Your task to perform on an android device: delete the emails in spam in the gmail app Image 0: 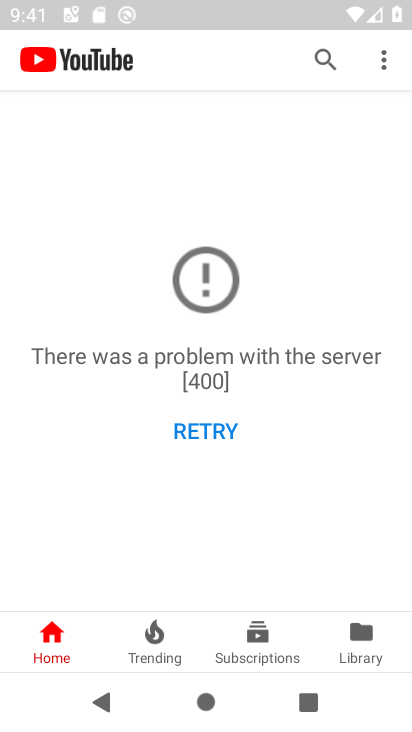
Step 0: press home button
Your task to perform on an android device: delete the emails in spam in the gmail app Image 1: 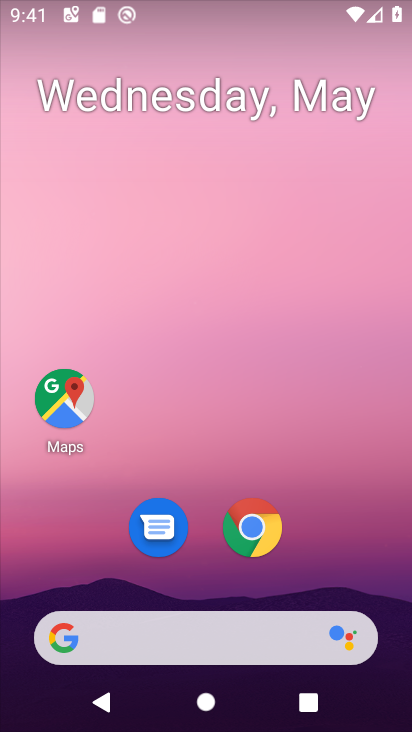
Step 1: drag from (311, 440) to (317, 71)
Your task to perform on an android device: delete the emails in spam in the gmail app Image 2: 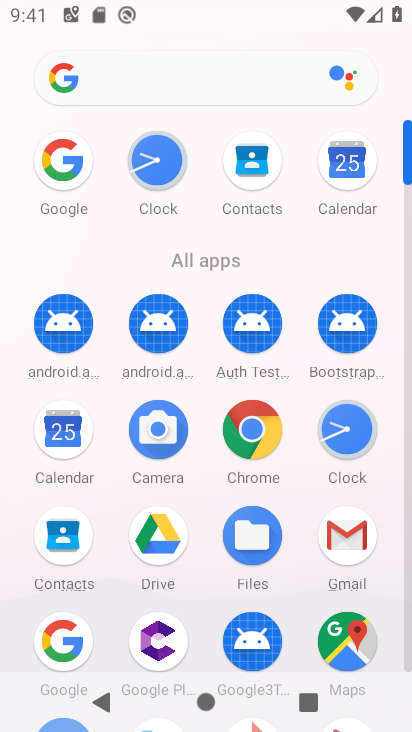
Step 2: click (346, 541)
Your task to perform on an android device: delete the emails in spam in the gmail app Image 3: 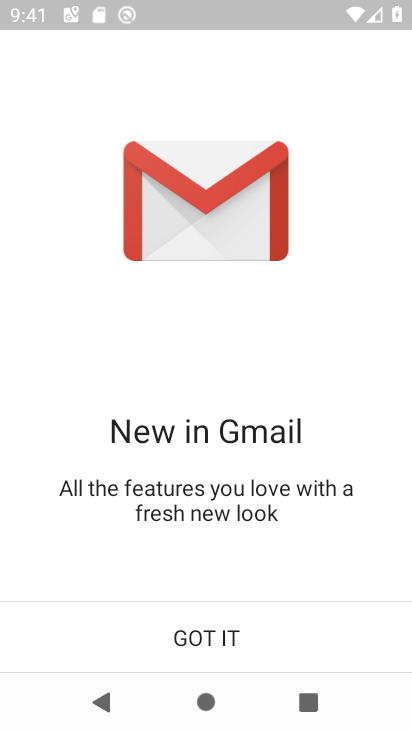
Step 3: click (218, 622)
Your task to perform on an android device: delete the emails in spam in the gmail app Image 4: 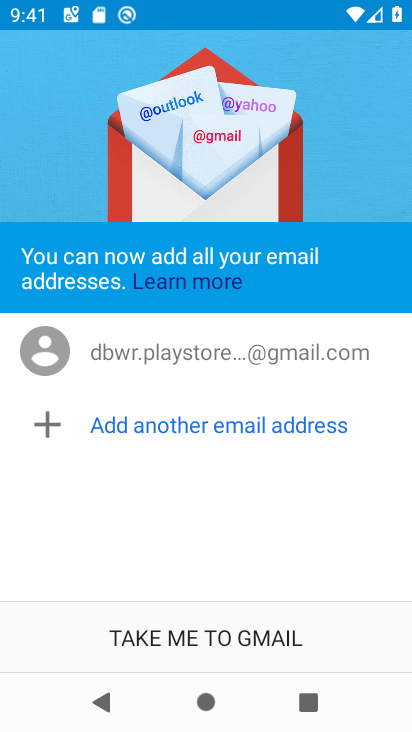
Step 4: click (219, 623)
Your task to perform on an android device: delete the emails in spam in the gmail app Image 5: 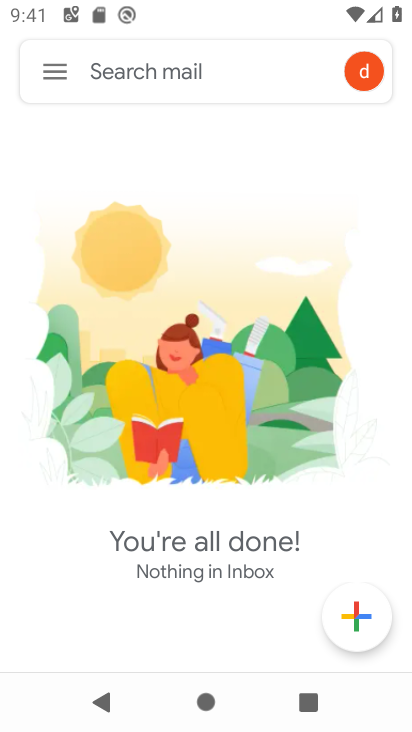
Step 5: click (50, 55)
Your task to perform on an android device: delete the emails in spam in the gmail app Image 6: 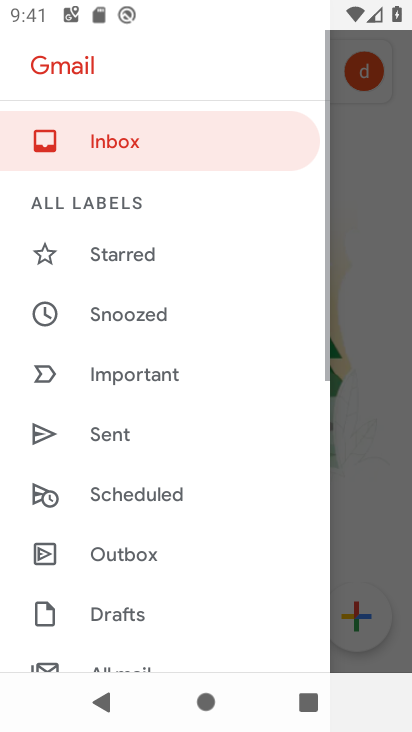
Step 6: drag from (154, 616) to (158, 275)
Your task to perform on an android device: delete the emails in spam in the gmail app Image 7: 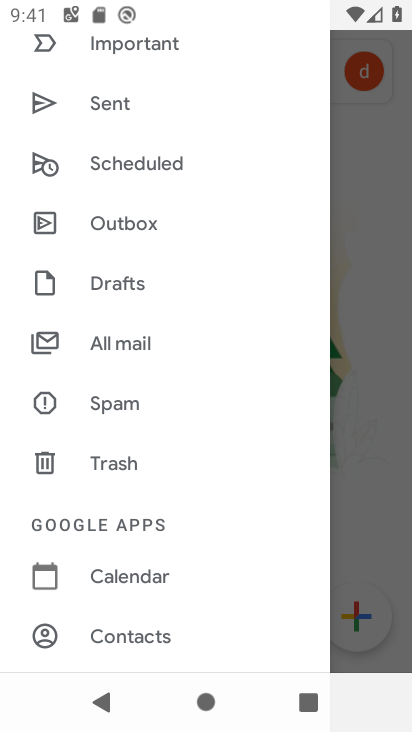
Step 7: click (114, 404)
Your task to perform on an android device: delete the emails in spam in the gmail app Image 8: 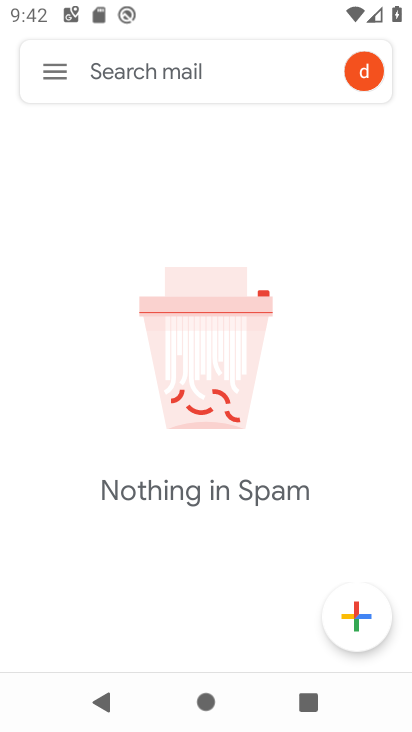
Step 8: task complete